Your task to perform on an android device: See recent photos Image 0: 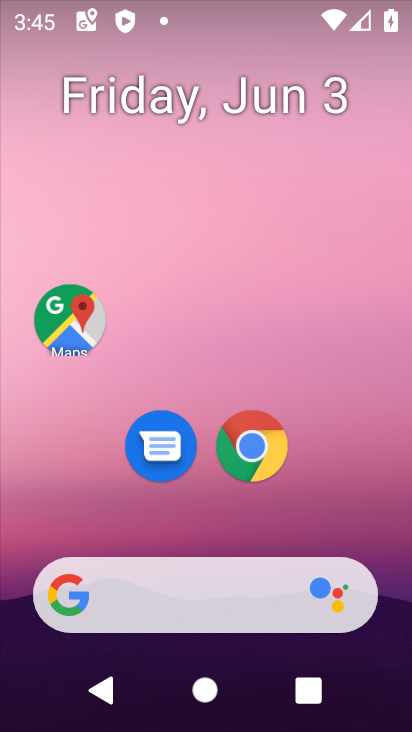
Step 0: task impossible